Your task to perform on an android device: What's the weather going to be this weekend? Image 0: 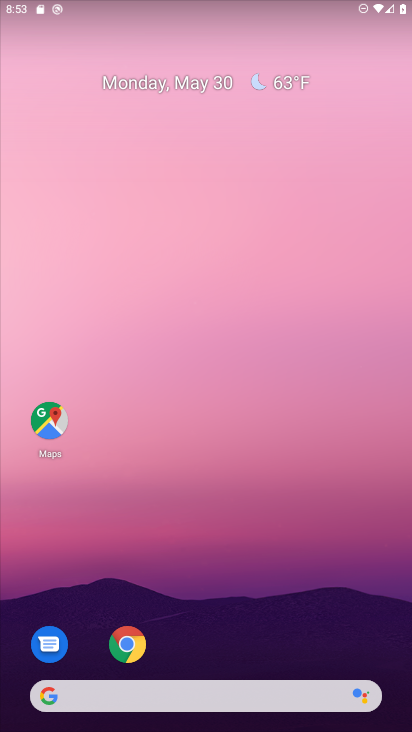
Step 0: drag from (217, 648) to (248, 72)
Your task to perform on an android device: What's the weather going to be this weekend? Image 1: 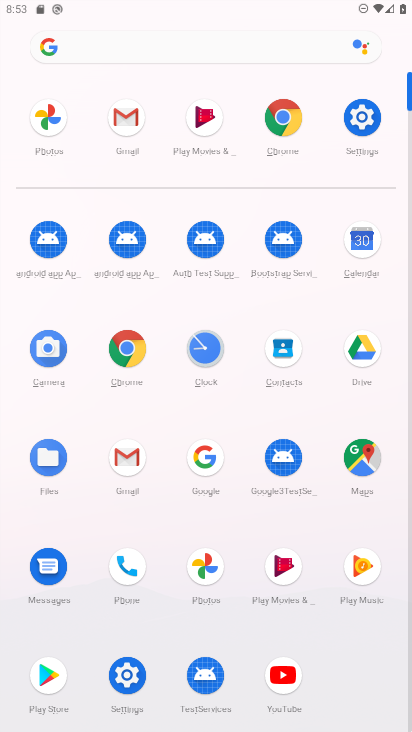
Step 1: click (202, 456)
Your task to perform on an android device: What's the weather going to be this weekend? Image 2: 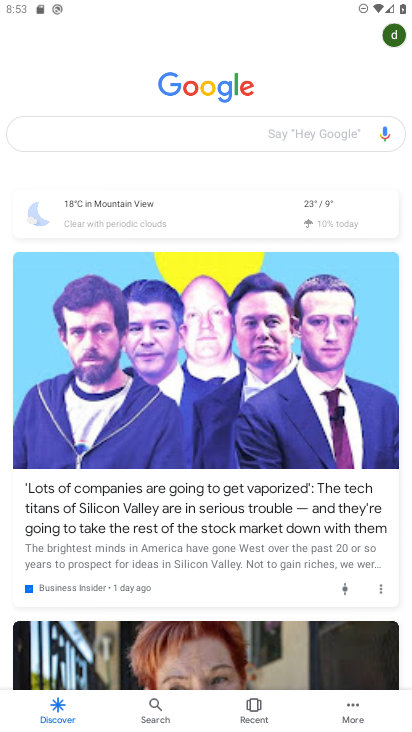
Step 2: click (200, 136)
Your task to perform on an android device: What's the weather going to be this weekend? Image 3: 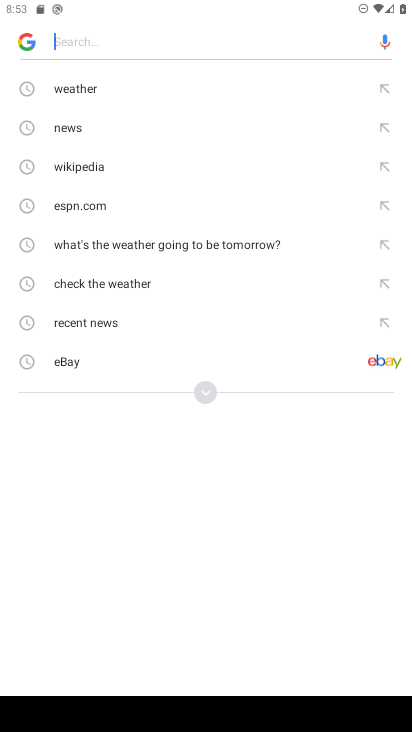
Step 3: click (107, 87)
Your task to perform on an android device: What's the weather going to be this weekend? Image 4: 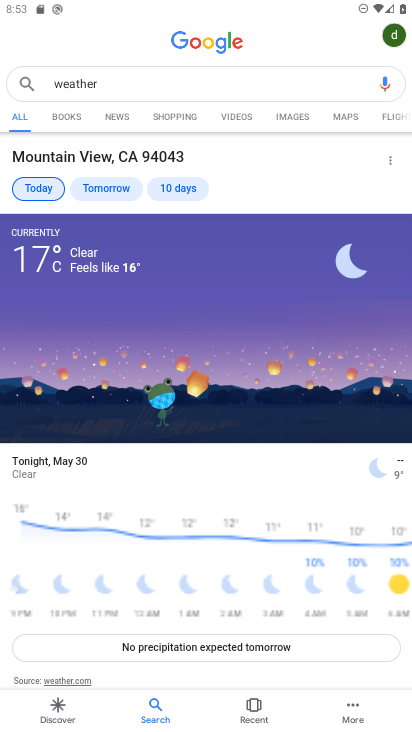
Step 4: click (182, 186)
Your task to perform on an android device: What's the weather going to be this weekend? Image 5: 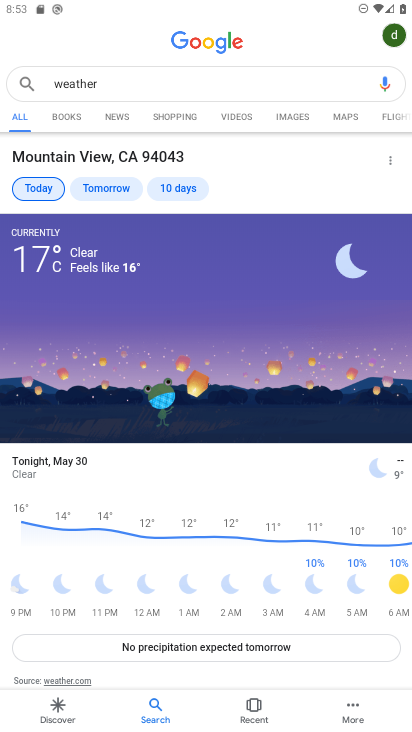
Step 5: click (175, 190)
Your task to perform on an android device: What's the weather going to be this weekend? Image 6: 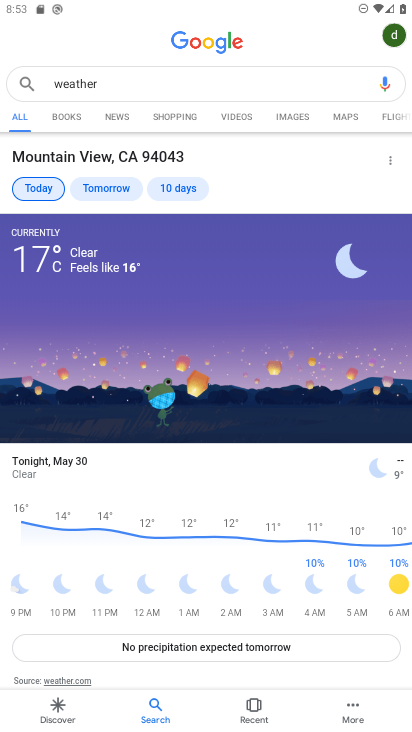
Step 6: click (174, 190)
Your task to perform on an android device: What's the weather going to be this weekend? Image 7: 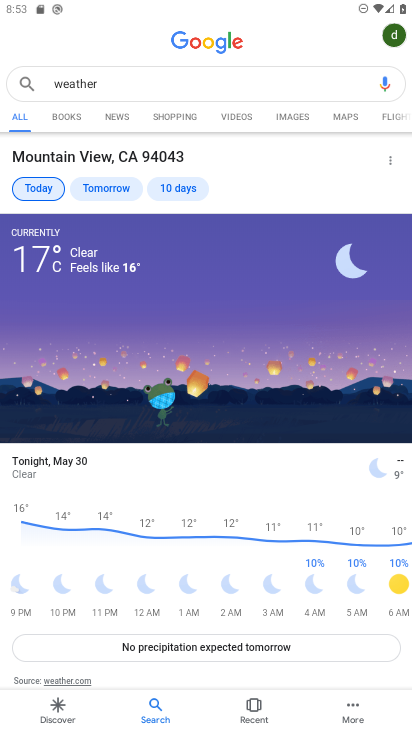
Step 7: click (174, 190)
Your task to perform on an android device: What's the weather going to be this weekend? Image 8: 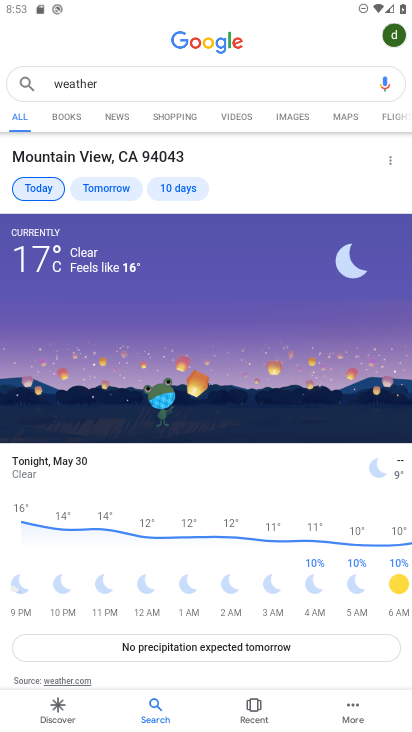
Step 8: click (177, 188)
Your task to perform on an android device: What's the weather going to be this weekend? Image 9: 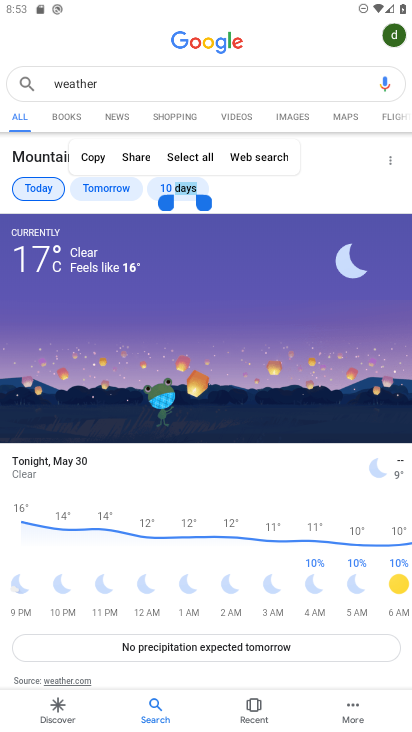
Step 9: click (177, 188)
Your task to perform on an android device: What's the weather going to be this weekend? Image 10: 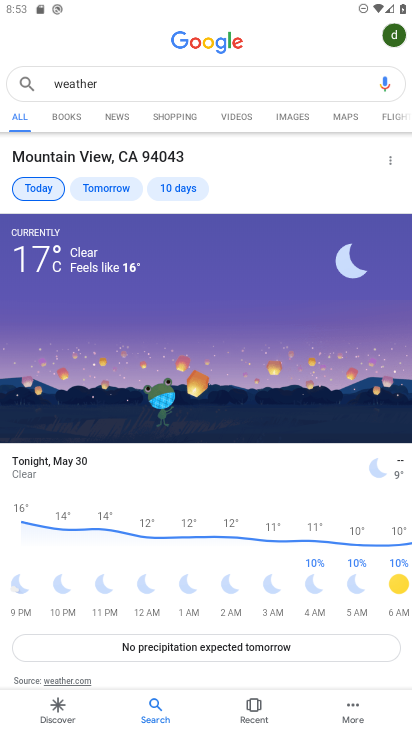
Step 10: click (336, 188)
Your task to perform on an android device: What's the weather going to be this weekend? Image 11: 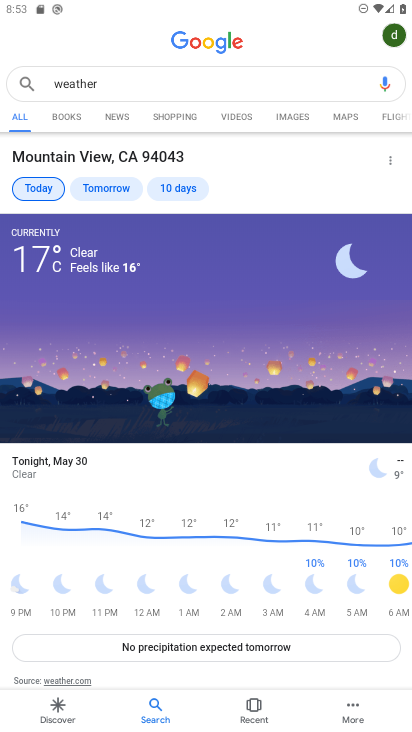
Step 11: task complete